Your task to perform on an android device: Go to notification settings Image 0: 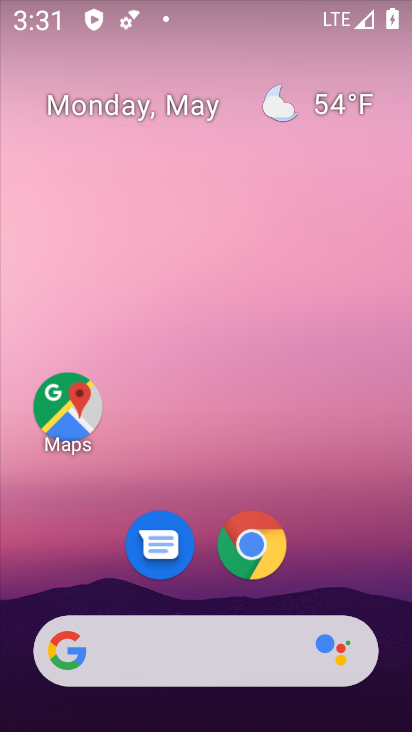
Step 0: drag from (397, 649) to (252, 172)
Your task to perform on an android device: Go to notification settings Image 1: 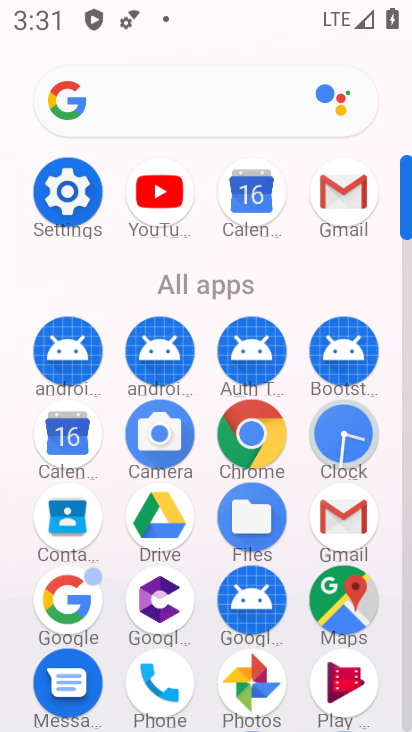
Step 1: click (407, 687)
Your task to perform on an android device: Go to notification settings Image 2: 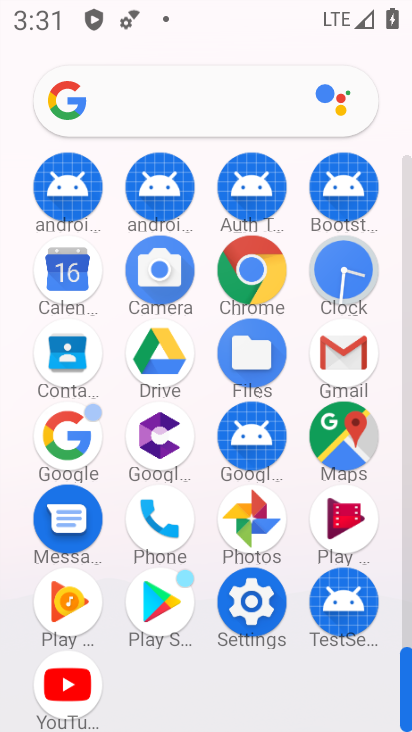
Step 2: click (253, 602)
Your task to perform on an android device: Go to notification settings Image 3: 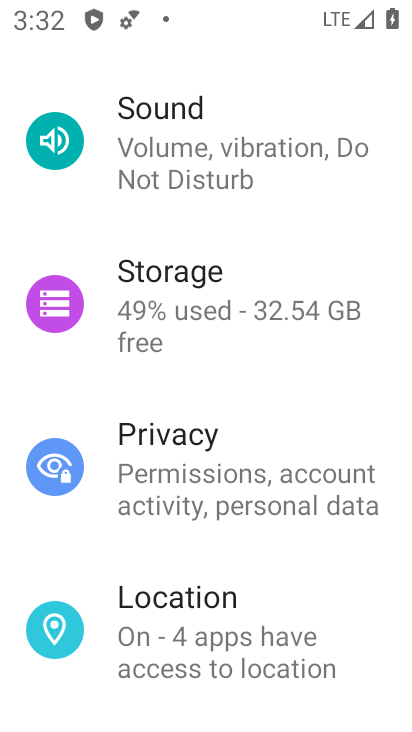
Step 3: drag from (367, 183) to (351, 514)
Your task to perform on an android device: Go to notification settings Image 4: 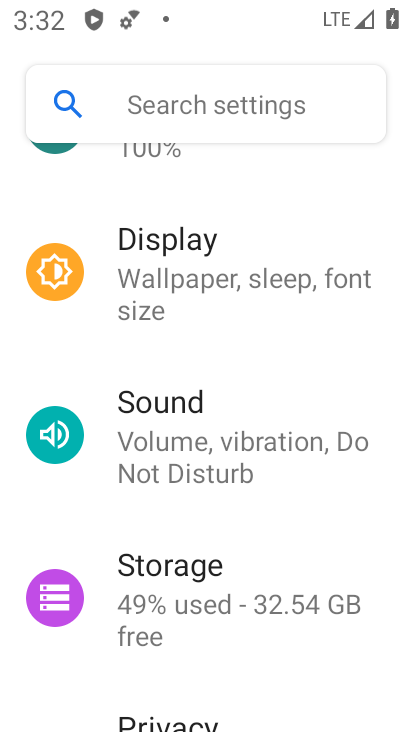
Step 4: drag from (363, 255) to (340, 533)
Your task to perform on an android device: Go to notification settings Image 5: 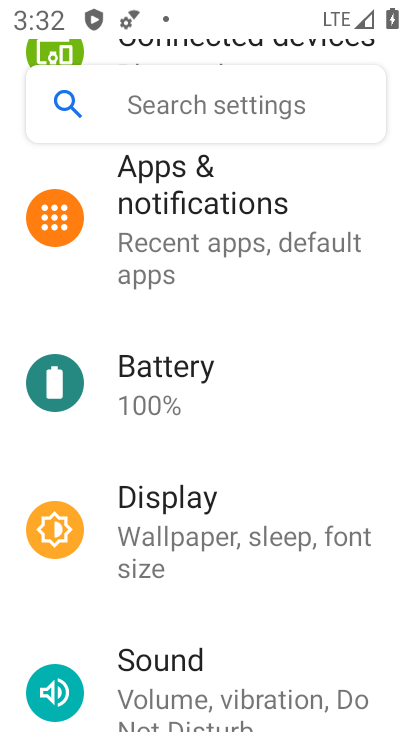
Step 5: click (179, 185)
Your task to perform on an android device: Go to notification settings Image 6: 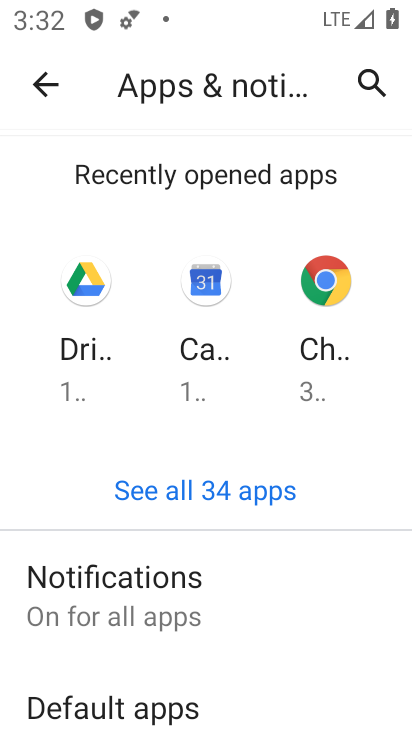
Step 6: click (120, 592)
Your task to perform on an android device: Go to notification settings Image 7: 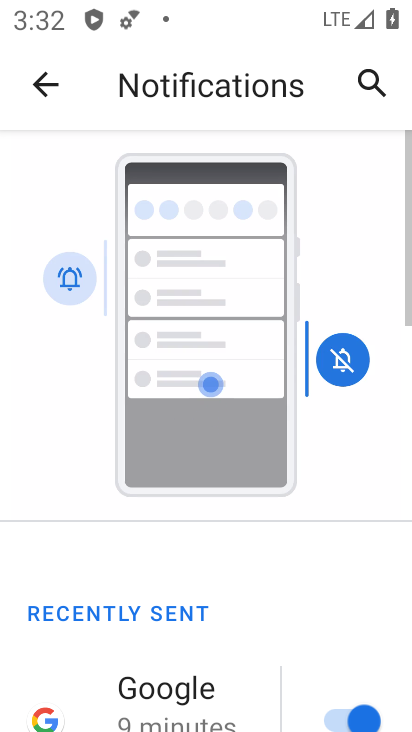
Step 7: drag from (291, 675) to (184, 156)
Your task to perform on an android device: Go to notification settings Image 8: 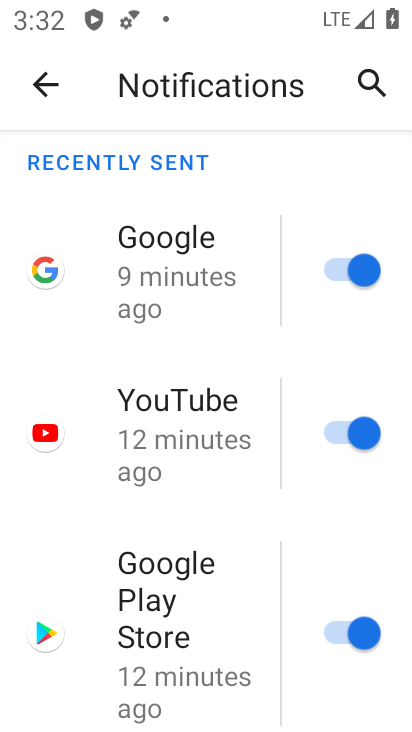
Step 8: drag from (284, 688) to (207, 207)
Your task to perform on an android device: Go to notification settings Image 9: 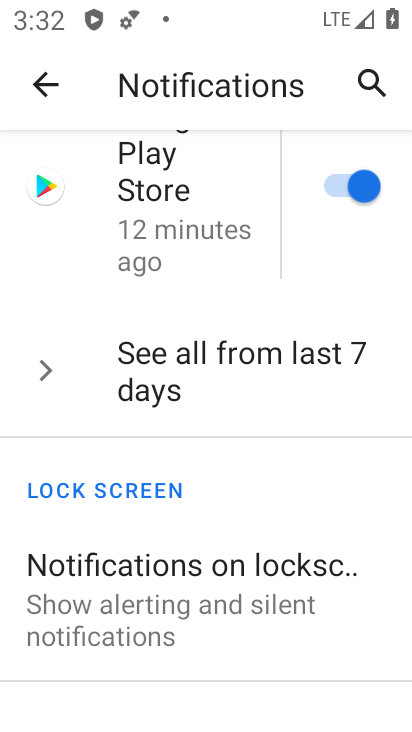
Step 9: drag from (256, 564) to (232, 163)
Your task to perform on an android device: Go to notification settings Image 10: 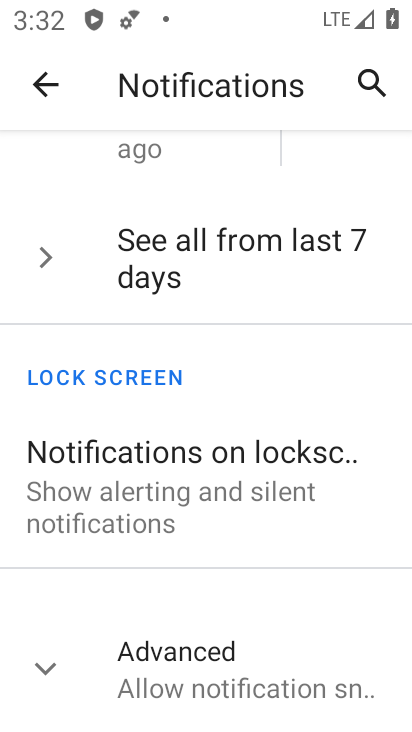
Step 10: click (54, 663)
Your task to perform on an android device: Go to notification settings Image 11: 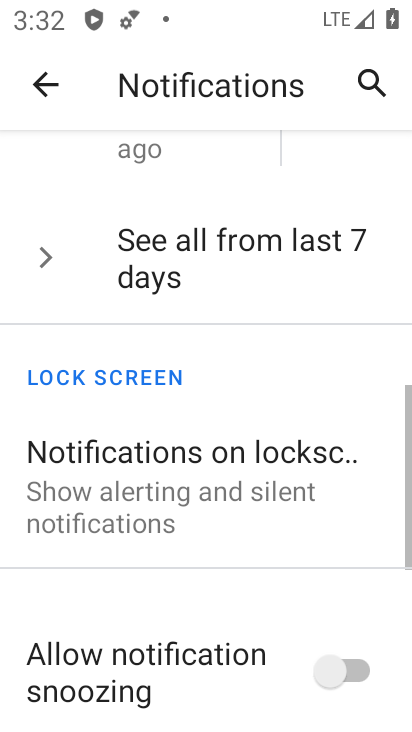
Step 11: task complete